Your task to perform on an android device: See recent photos Image 0: 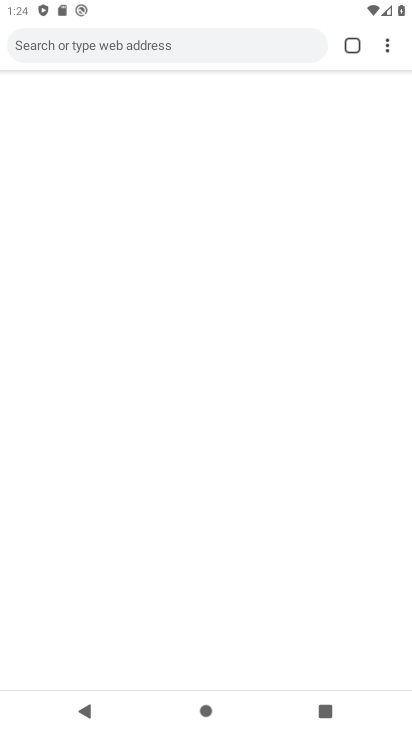
Step 0: drag from (241, 626) to (261, 533)
Your task to perform on an android device: See recent photos Image 1: 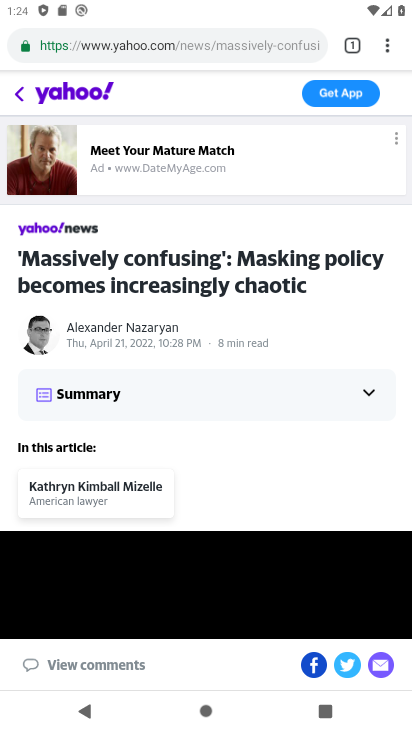
Step 1: press home button
Your task to perform on an android device: See recent photos Image 2: 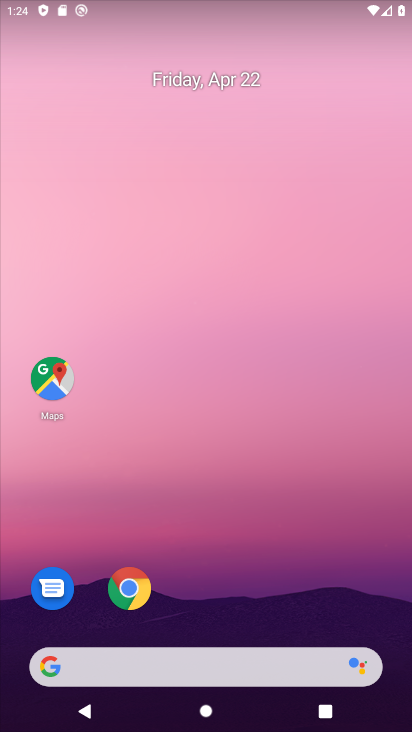
Step 2: drag from (273, 639) to (302, 186)
Your task to perform on an android device: See recent photos Image 3: 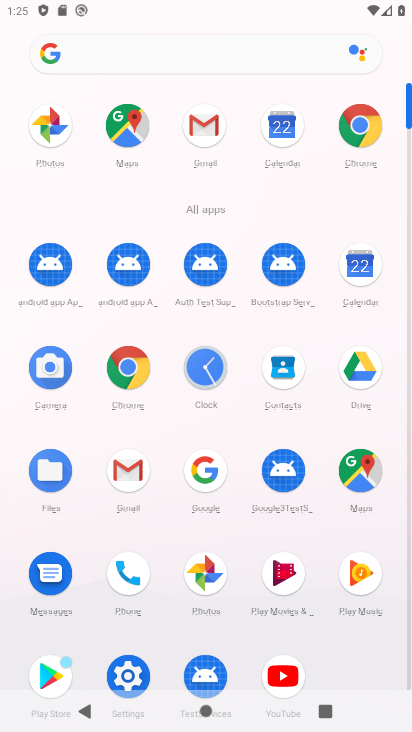
Step 3: click (210, 592)
Your task to perform on an android device: See recent photos Image 4: 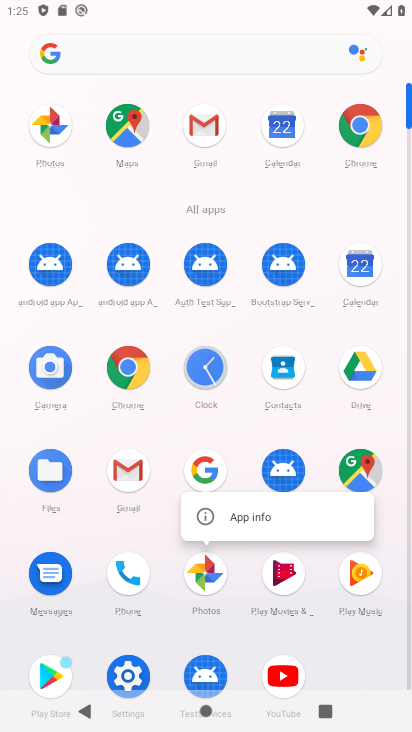
Step 4: click (218, 582)
Your task to perform on an android device: See recent photos Image 5: 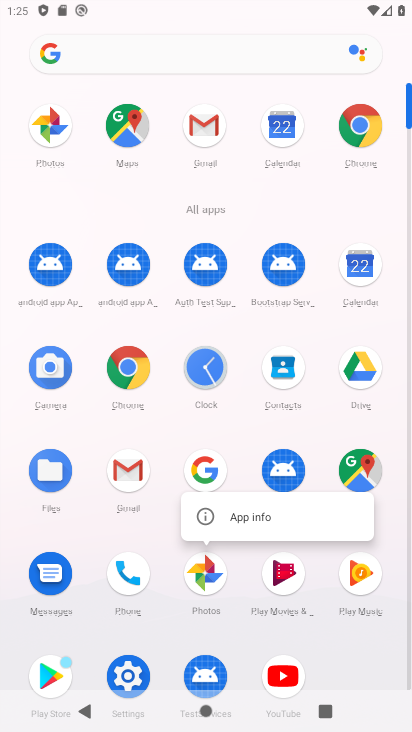
Step 5: click (215, 589)
Your task to perform on an android device: See recent photos Image 6: 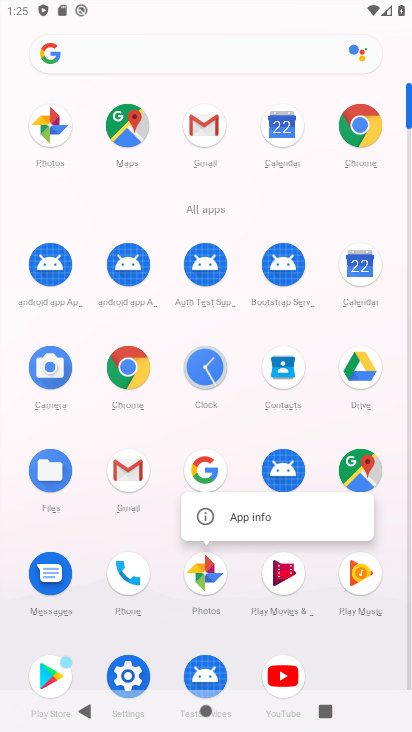
Step 6: click (200, 593)
Your task to perform on an android device: See recent photos Image 7: 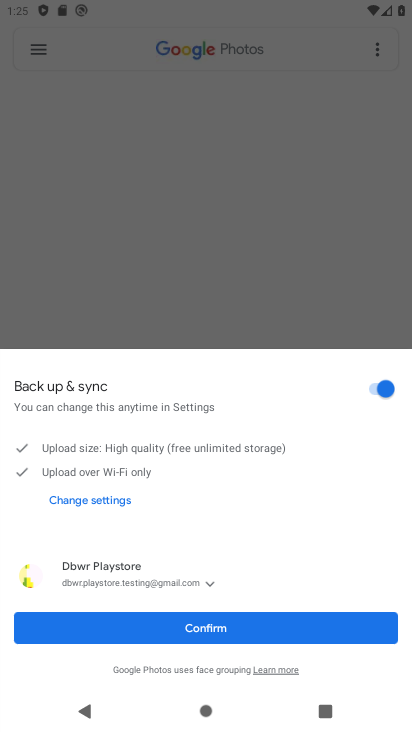
Step 7: click (196, 636)
Your task to perform on an android device: See recent photos Image 8: 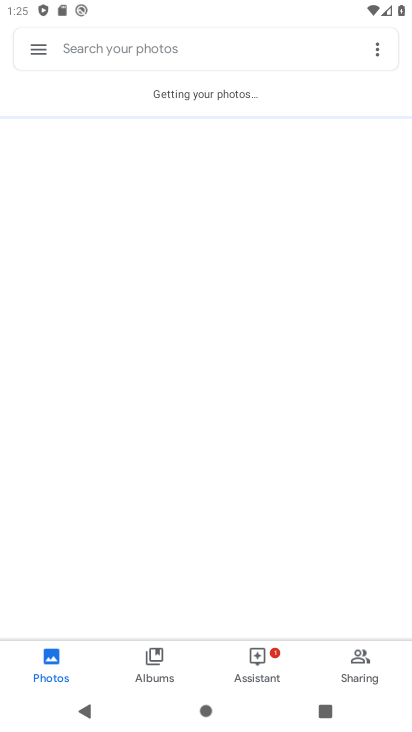
Step 8: task complete